Your task to perform on an android device: Open Yahoo.com Image 0: 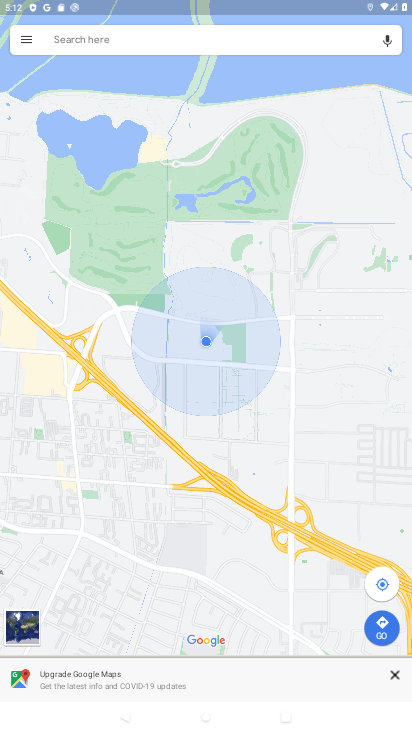
Step 0: press home button
Your task to perform on an android device: Open Yahoo.com Image 1: 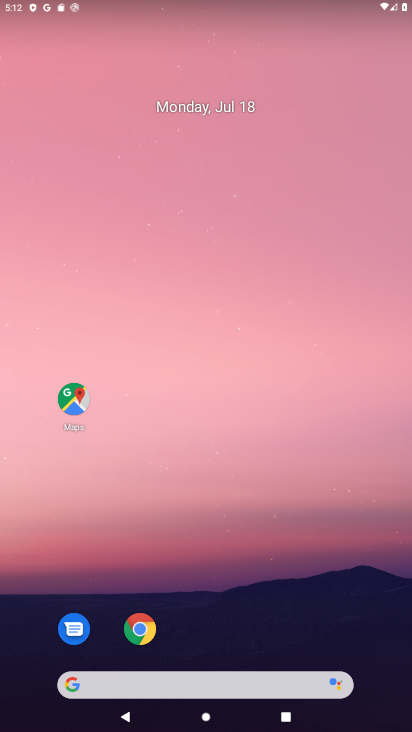
Step 1: drag from (309, 629) to (308, 79)
Your task to perform on an android device: Open Yahoo.com Image 2: 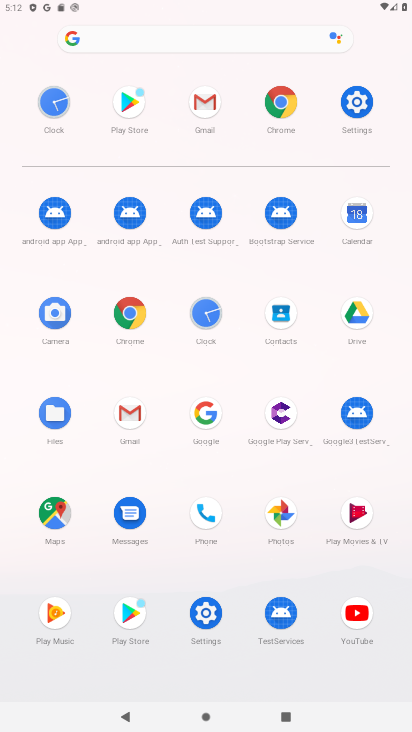
Step 2: click (278, 101)
Your task to perform on an android device: Open Yahoo.com Image 3: 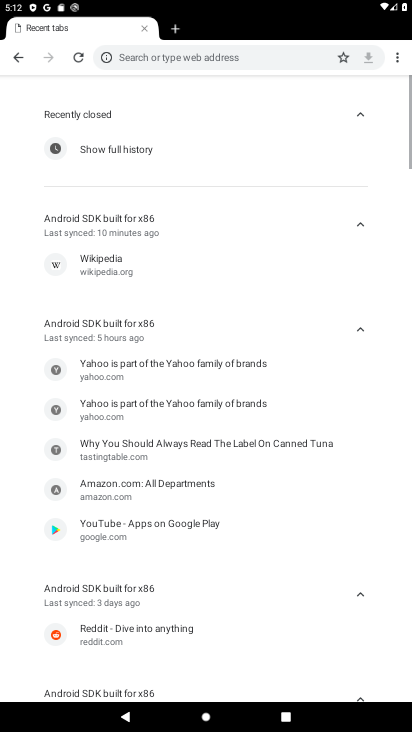
Step 3: click (169, 62)
Your task to perform on an android device: Open Yahoo.com Image 4: 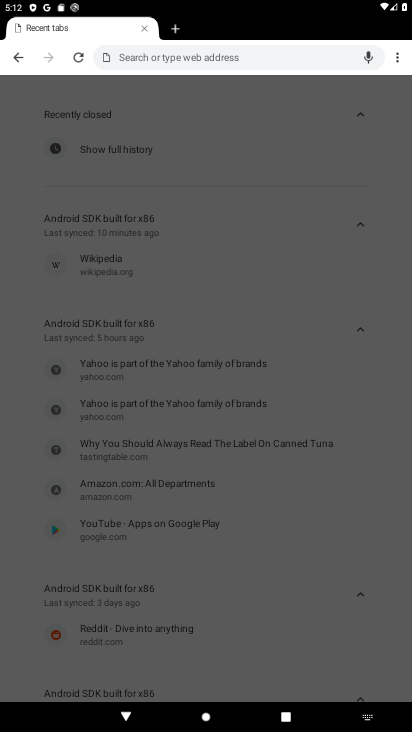
Step 4: type "yahoo.com"
Your task to perform on an android device: Open Yahoo.com Image 5: 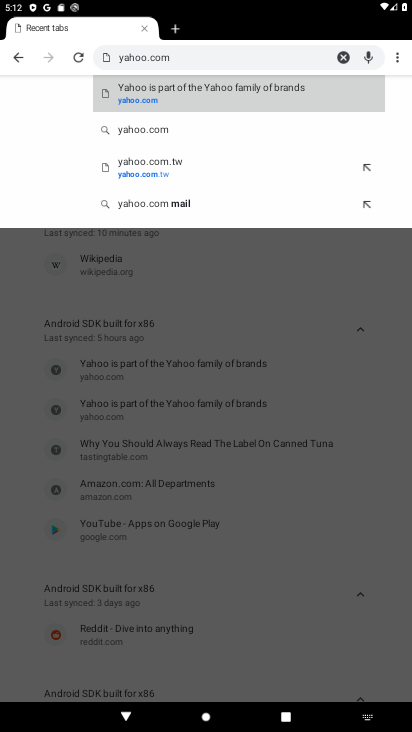
Step 5: click (210, 95)
Your task to perform on an android device: Open Yahoo.com Image 6: 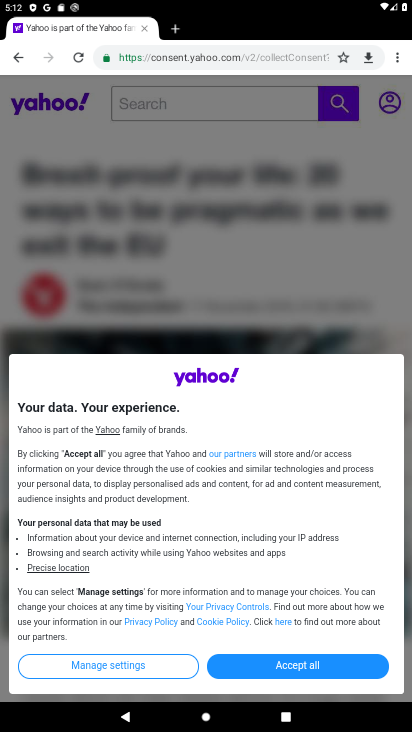
Step 6: task complete